Your task to perform on an android device: open chrome privacy settings Image 0: 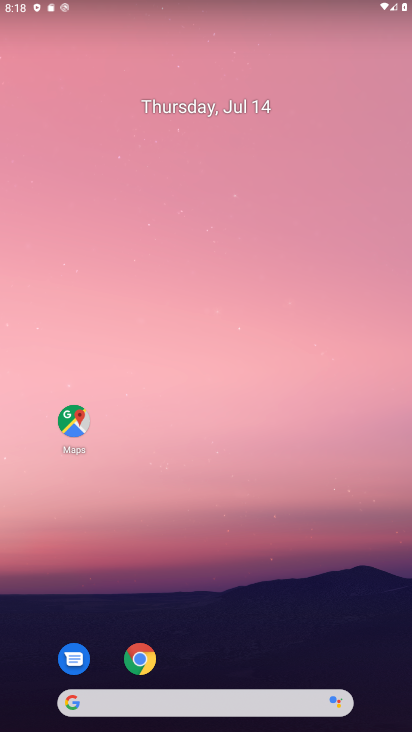
Step 0: drag from (191, 657) to (143, 203)
Your task to perform on an android device: open chrome privacy settings Image 1: 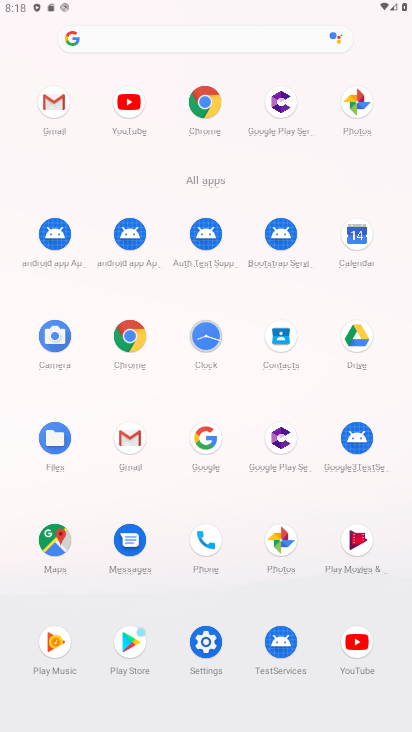
Step 1: click (195, 87)
Your task to perform on an android device: open chrome privacy settings Image 2: 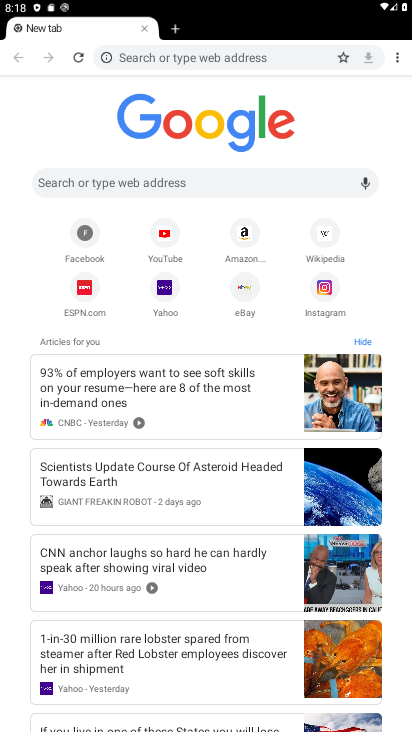
Step 2: click (392, 59)
Your task to perform on an android device: open chrome privacy settings Image 3: 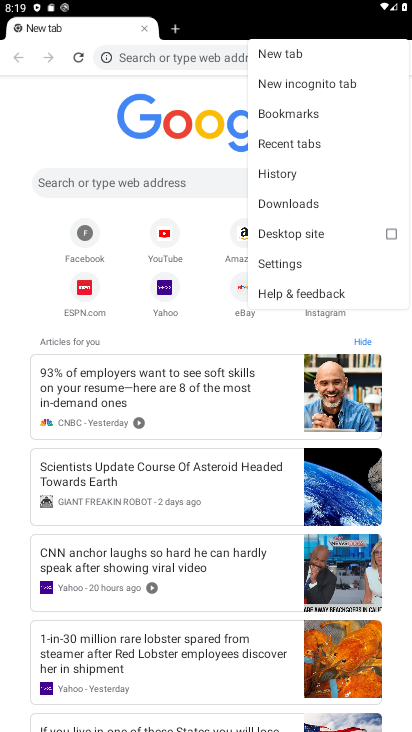
Step 3: click (290, 272)
Your task to perform on an android device: open chrome privacy settings Image 4: 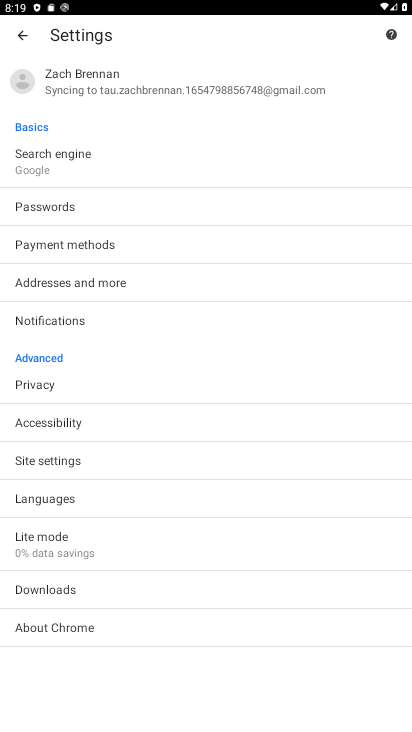
Step 4: click (26, 391)
Your task to perform on an android device: open chrome privacy settings Image 5: 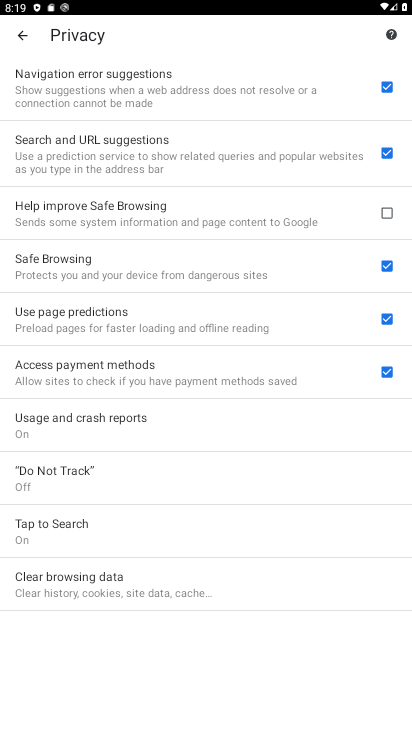
Step 5: task complete